Your task to perform on an android device: change the clock style Image 0: 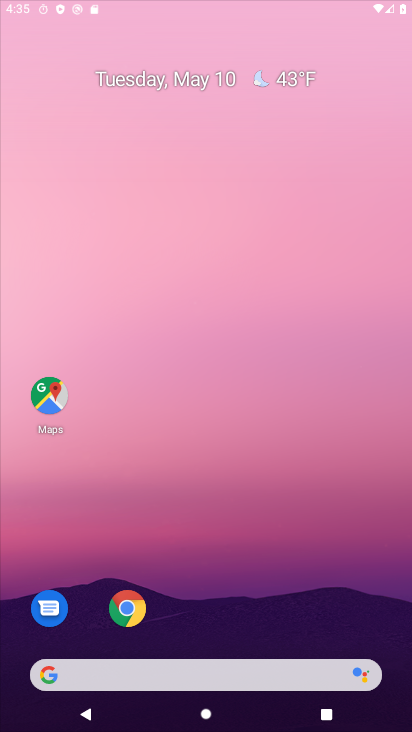
Step 0: drag from (239, 458) to (91, 23)
Your task to perform on an android device: change the clock style Image 1: 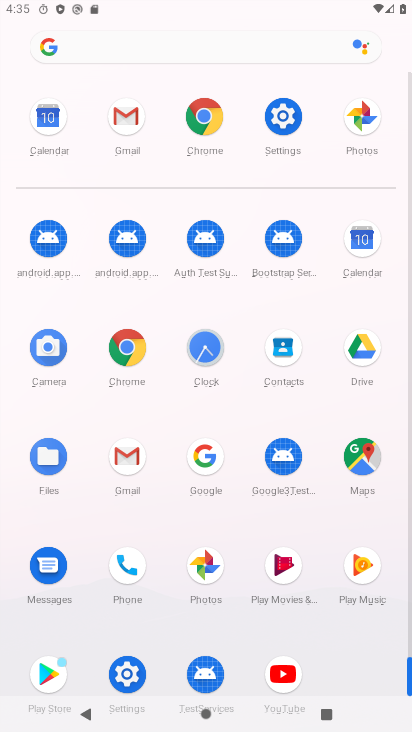
Step 1: click (200, 342)
Your task to perform on an android device: change the clock style Image 2: 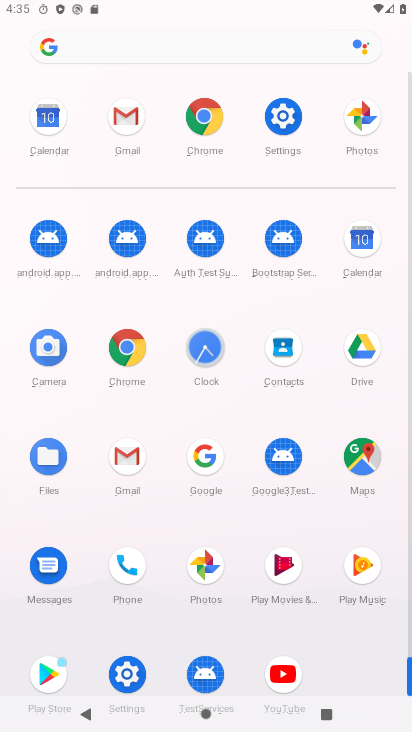
Step 2: click (201, 344)
Your task to perform on an android device: change the clock style Image 3: 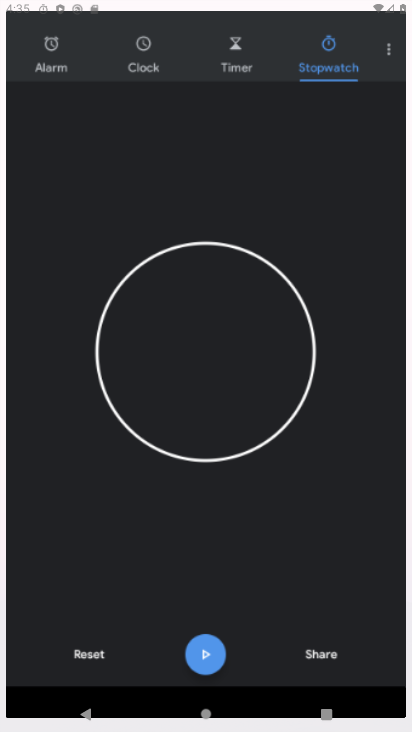
Step 3: click (205, 348)
Your task to perform on an android device: change the clock style Image 4: 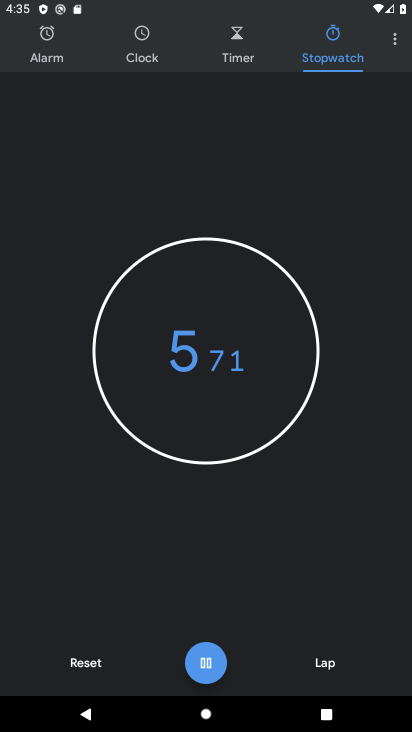
Step 4: click (197, 655)
Your task to perform on an android device: change the clock style Image 5: 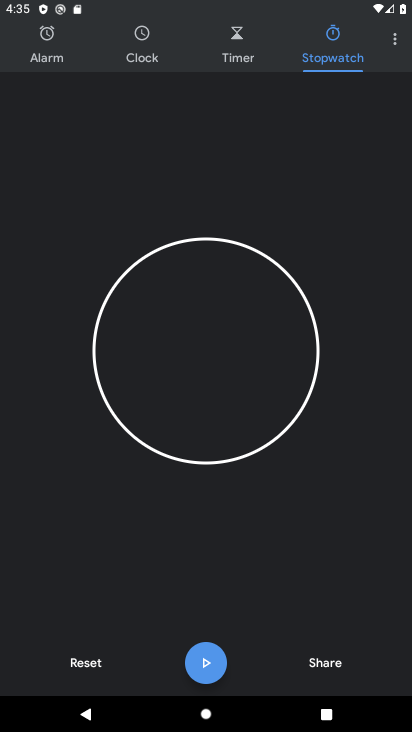
Step 5: click (200, 656)
Your task to perform on an android device: change the clock style Image 6: 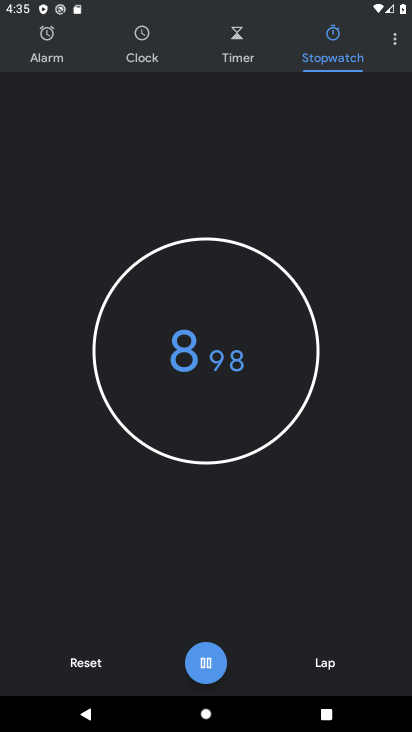
Step 6: click (132, 43)
Your task to perform on an android device: change the clock style Image 7: 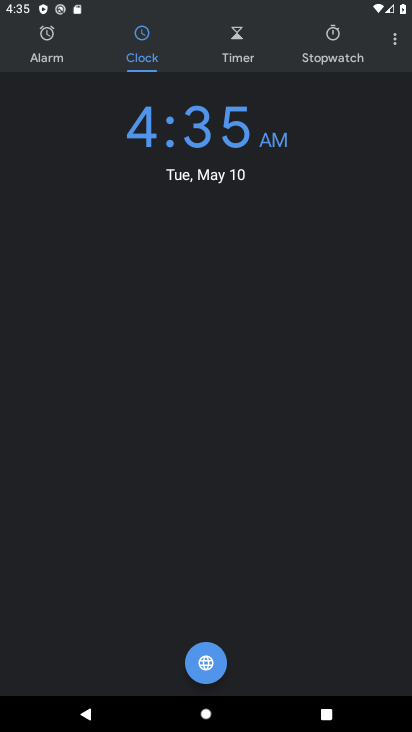
Step 7: click (388, 38)
Your task to perform on an android device: change the clock style Image 8: 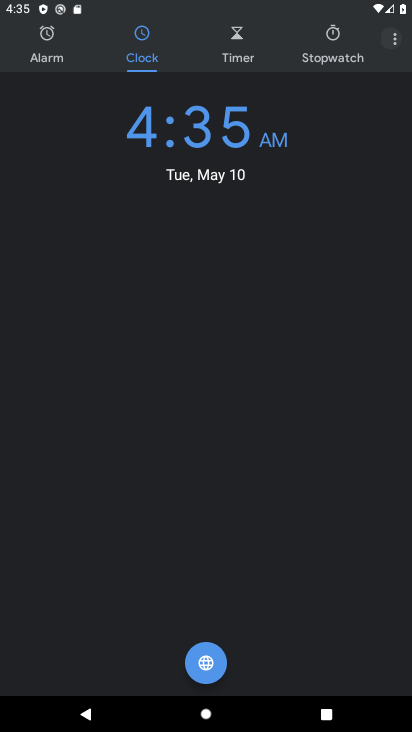
Step 8: click (388, 38)
Your task to perform on an android device: change the clock style Image 9: 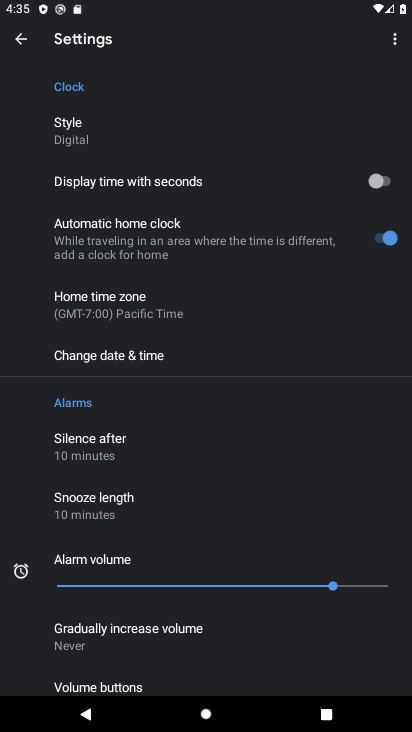
Step 9: click (134, 125)
Your task to perform on an android device: change the clock style Image 10: 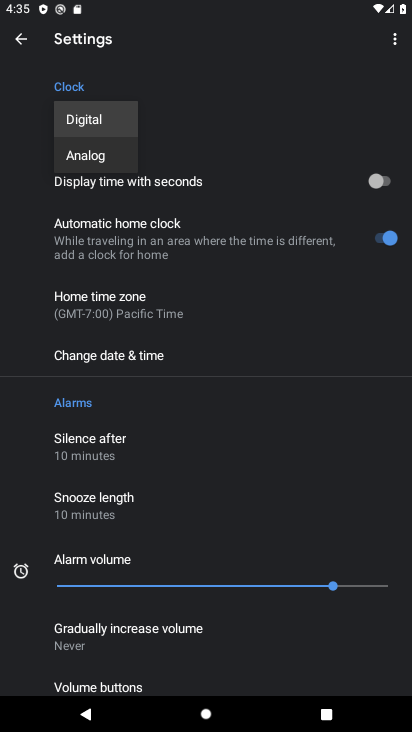
Step 10: click (94, 159)
Your task to perform on an android device: change the clock style Image 11: 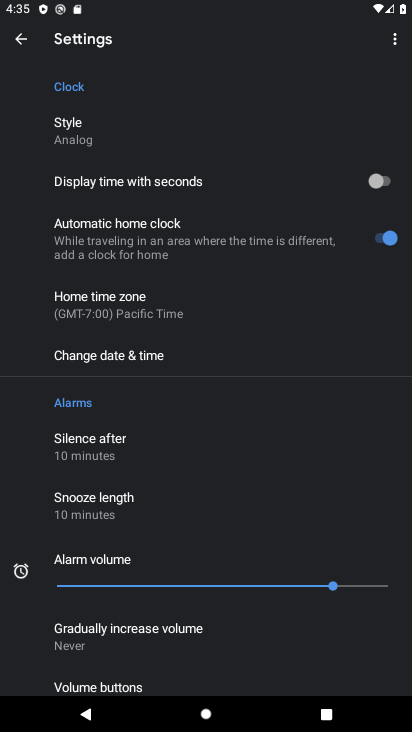
Step 11: task complete